Your task to perform on an android device: View the shopping cart on ebay.com. Add "usb-c to usb-a" to the cart on ebay.com, then select checkout. Image 0: 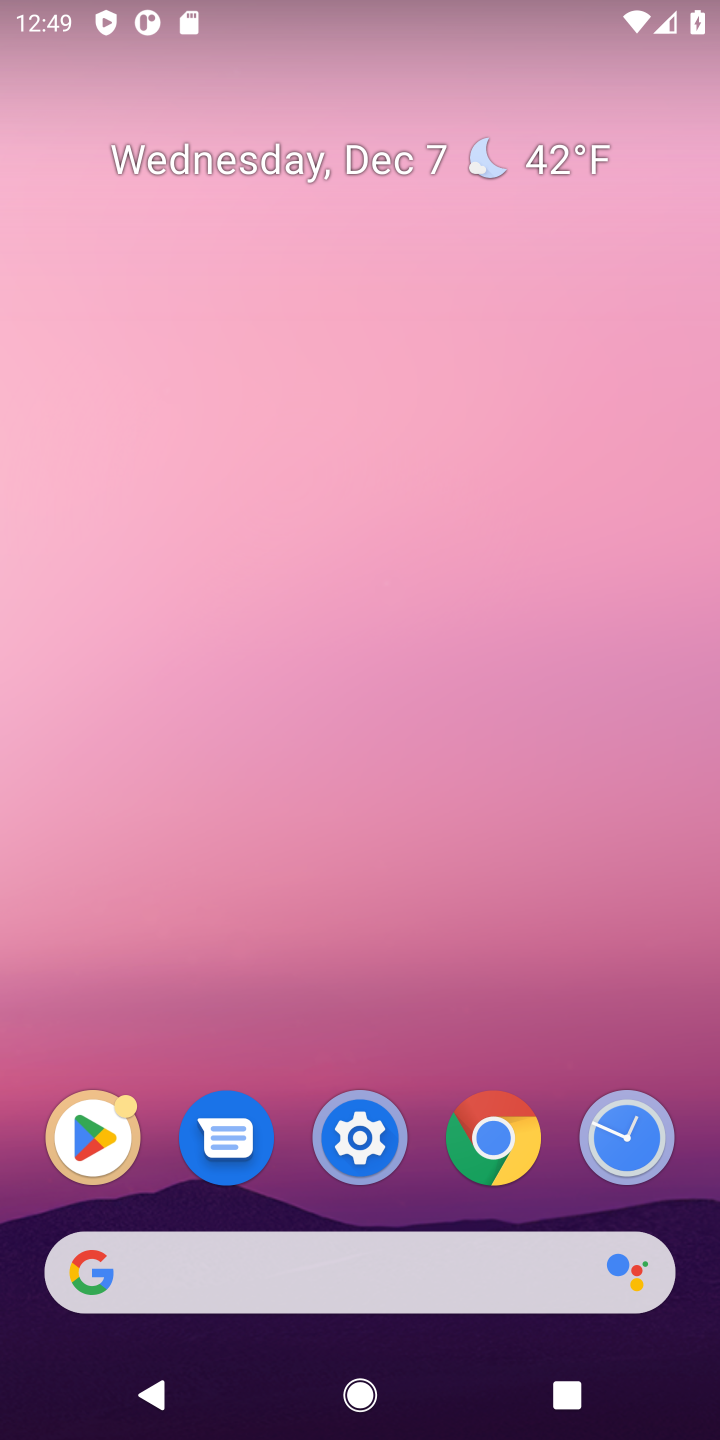
Step 0: click (285, 1283)
Your task to perform on an android device: View the shopping cart on ebay.com. Add "usb-c to usb-a" to the cart on ebay.com, then select checkout. Image 1: 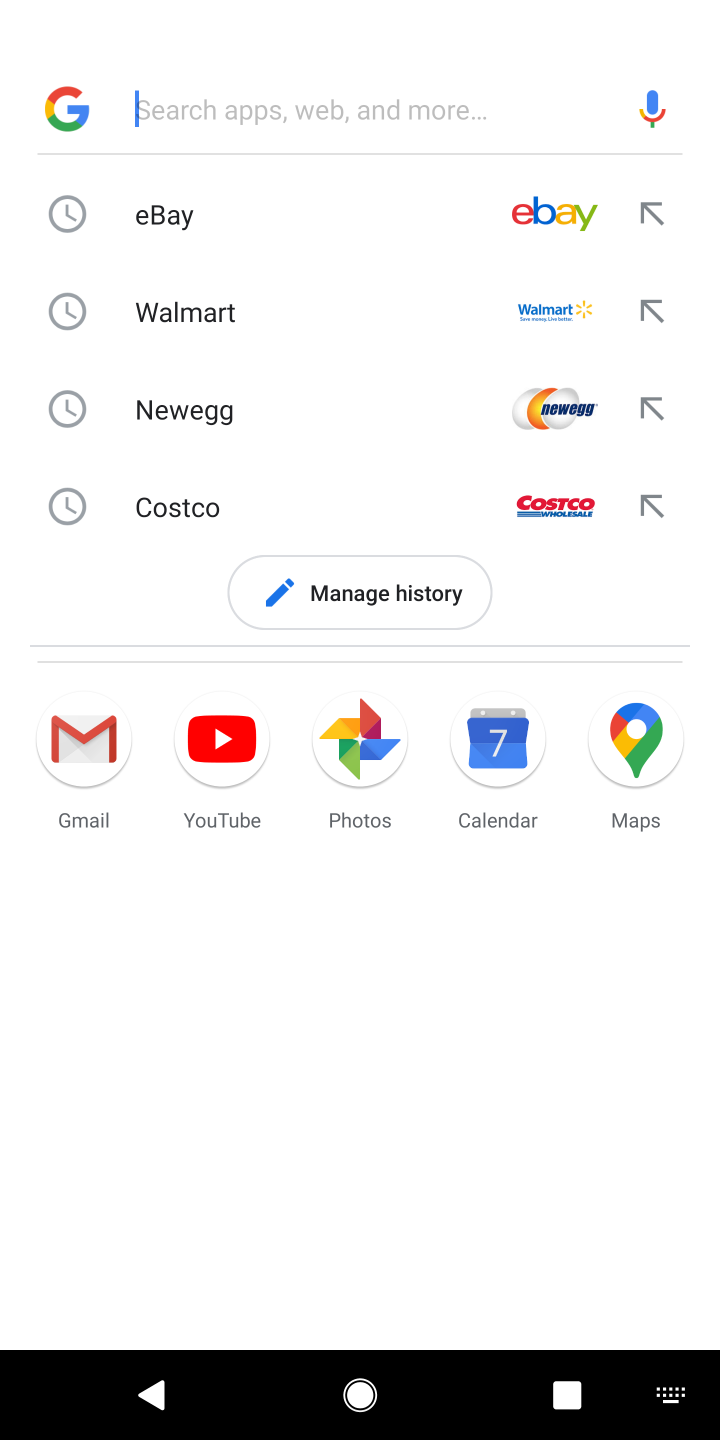
Step 1: type "ebay\]"
Your task to perform on an android device: View the shopping cart on ebay.com. Add "usb-c to usb-a" to the cart on ebay.com, then select checkout. Image 2: 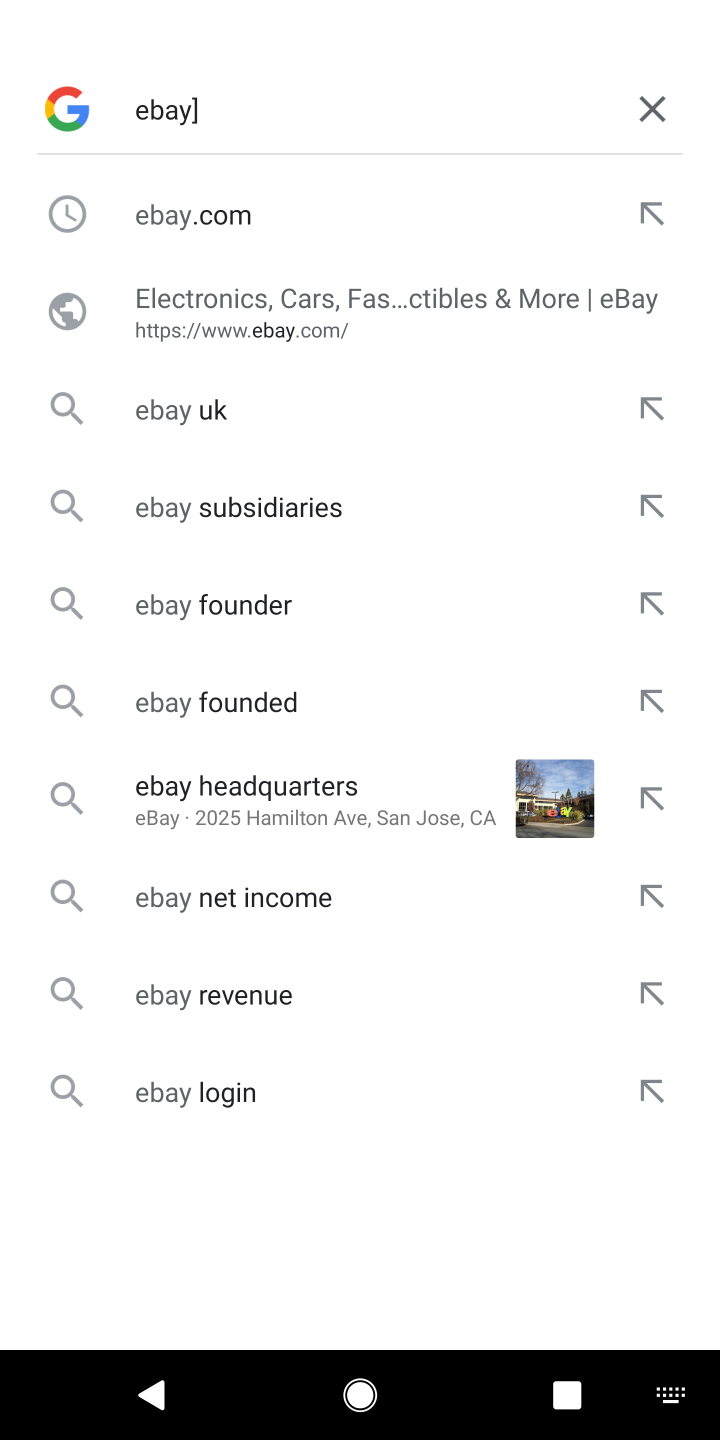
Step 2: click (188, 240)
Your task to perform on an android device: View the shopping cart on ebay.com. Add "usb-c to usb-a" to the cart on ebay.com, then select checkout. Image 3: 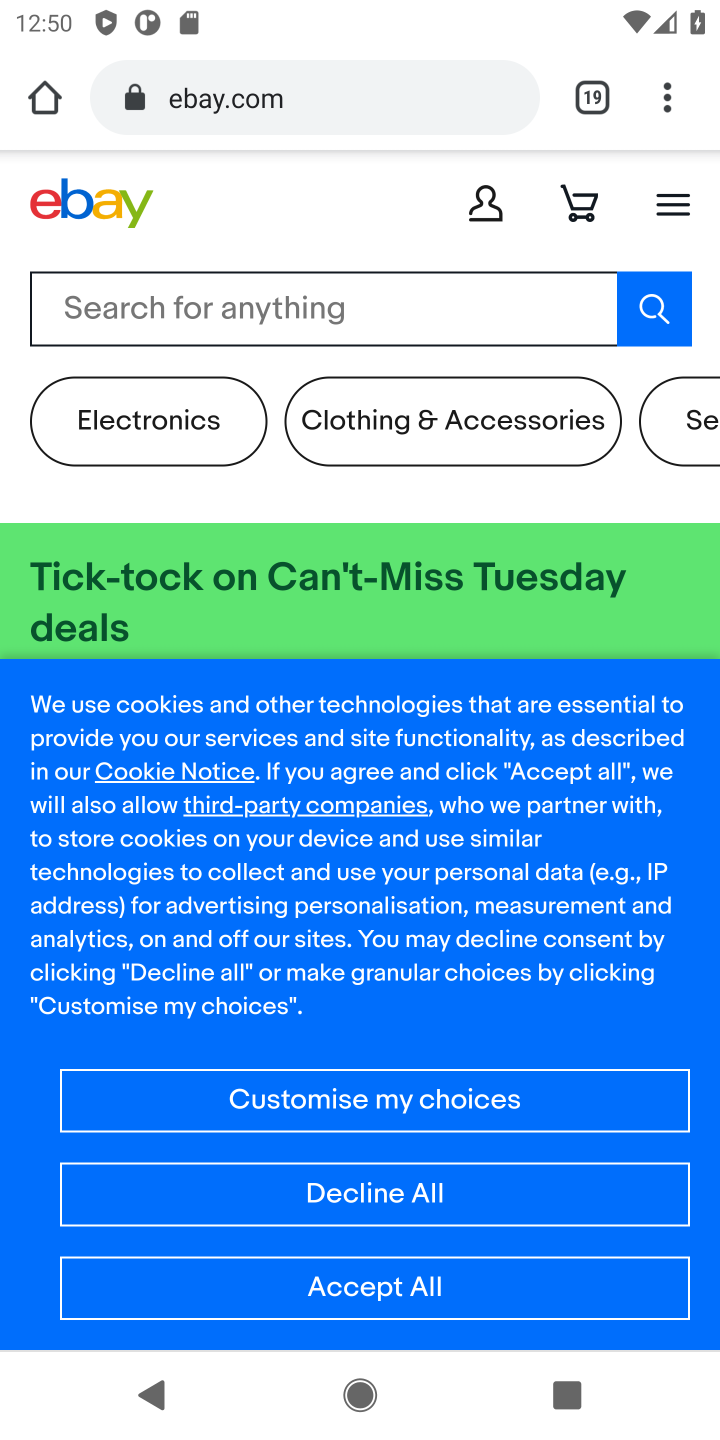
Step 3: click (188, 272)
Your task to perform on an android device: View the shopping cart on ebay.com. Add "usb-c to usb-a" to the cart on ebay.com, then select checkout. Image 4: 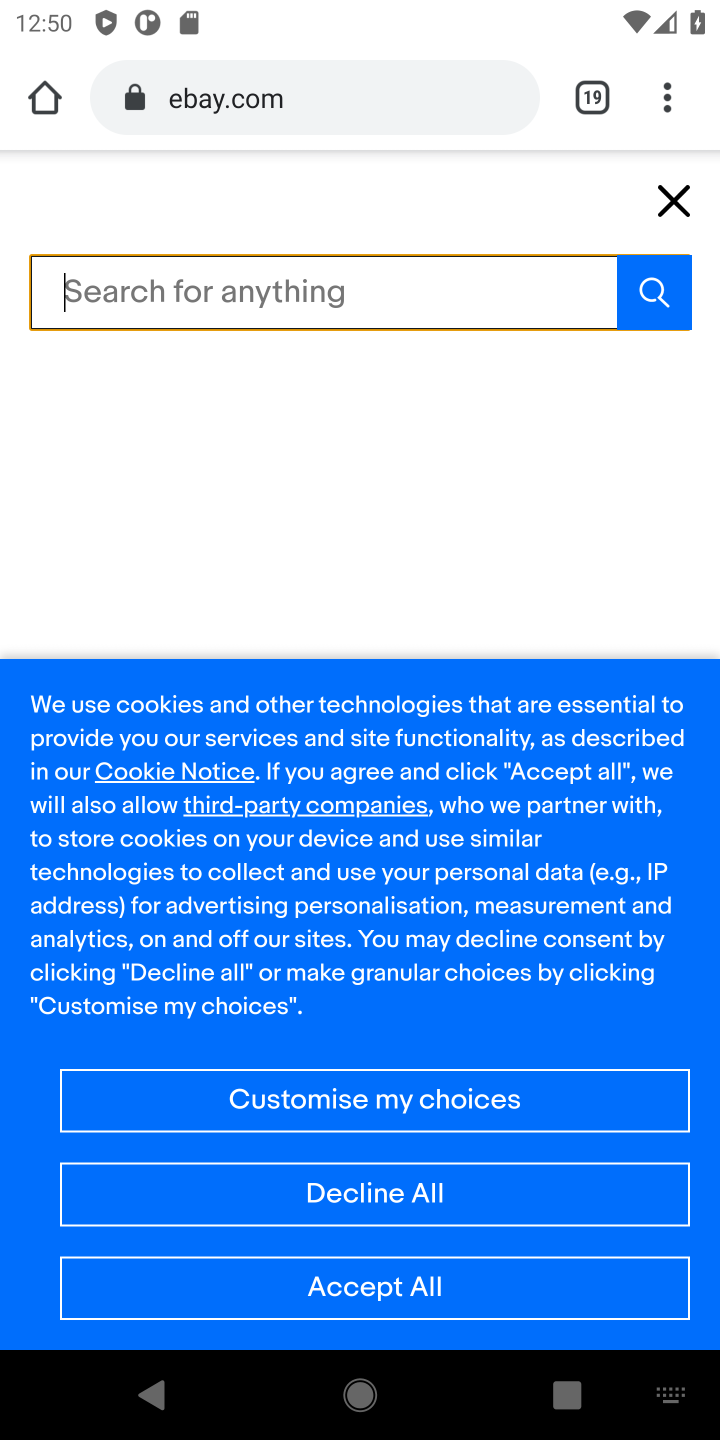
Step 4: type "usb-c t0 usb-a"
Your task to perform on an android device: View the shopping cart on ebay.com. Add "usb-c to usb-a" to the cart on ebay.com, then select checkout. Image 5: 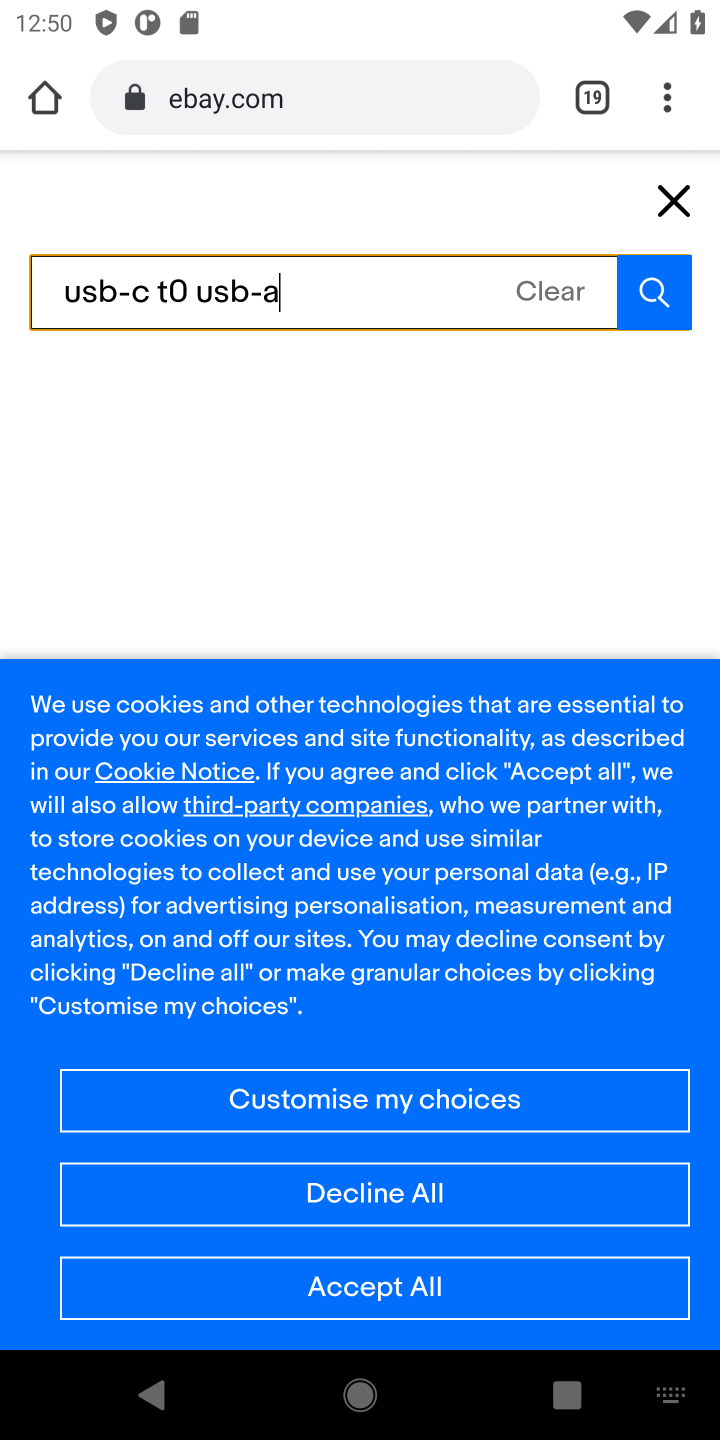
Step 5: click (671, 274)
Your task to perform on an android device: View the shopping cart on ebay.com. Add "usb-c to usb-a" to the cart on ebay.com, then select checkout. Image 6: 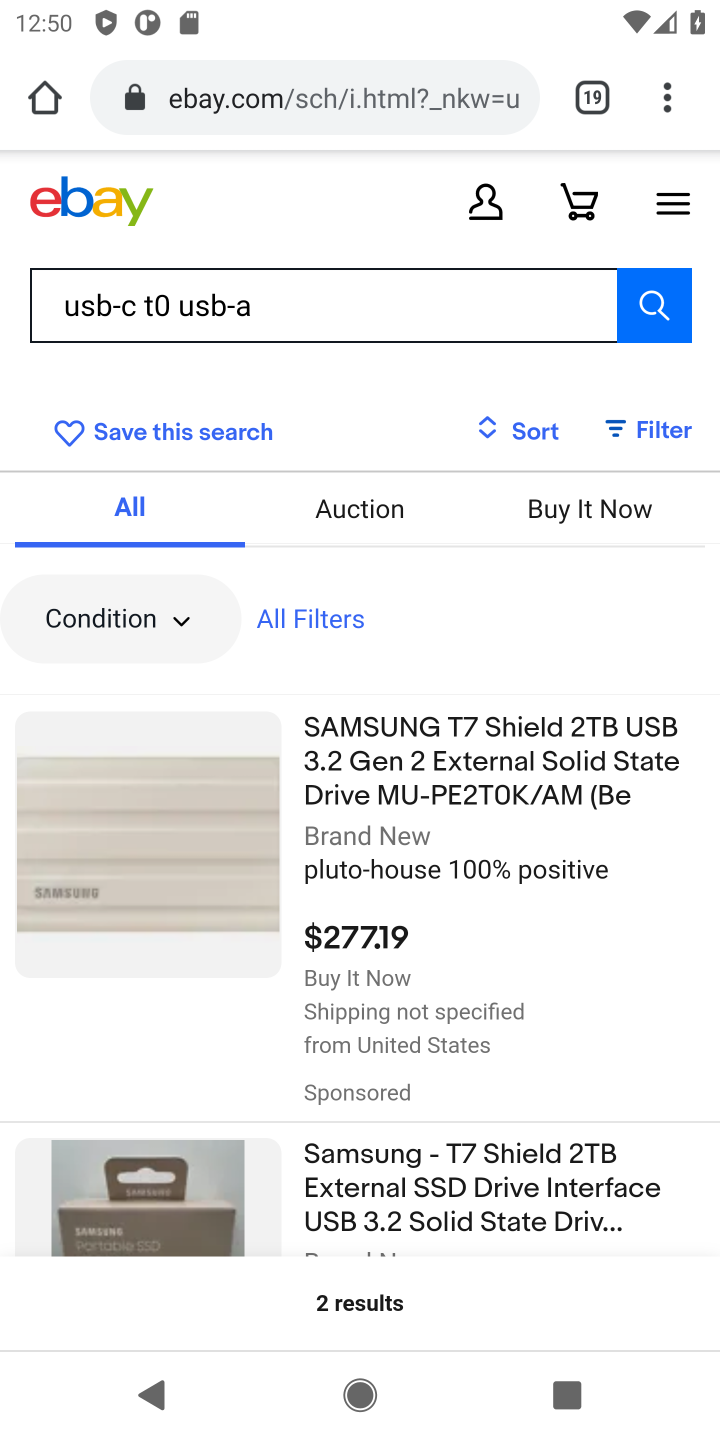
Step 6: task complete